Your task to perform on an android device: turn off smart reply in the gmail app Image 0: 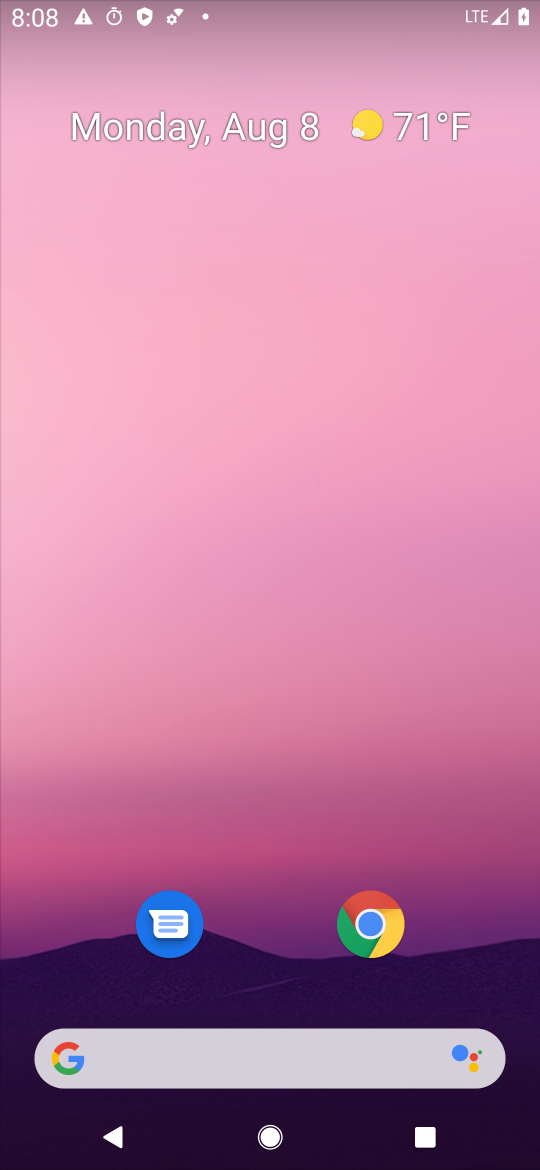
Step 0: click (530, 1153)
Your task to perform on an android device: turn off smart reply in the gmail app Image 1: 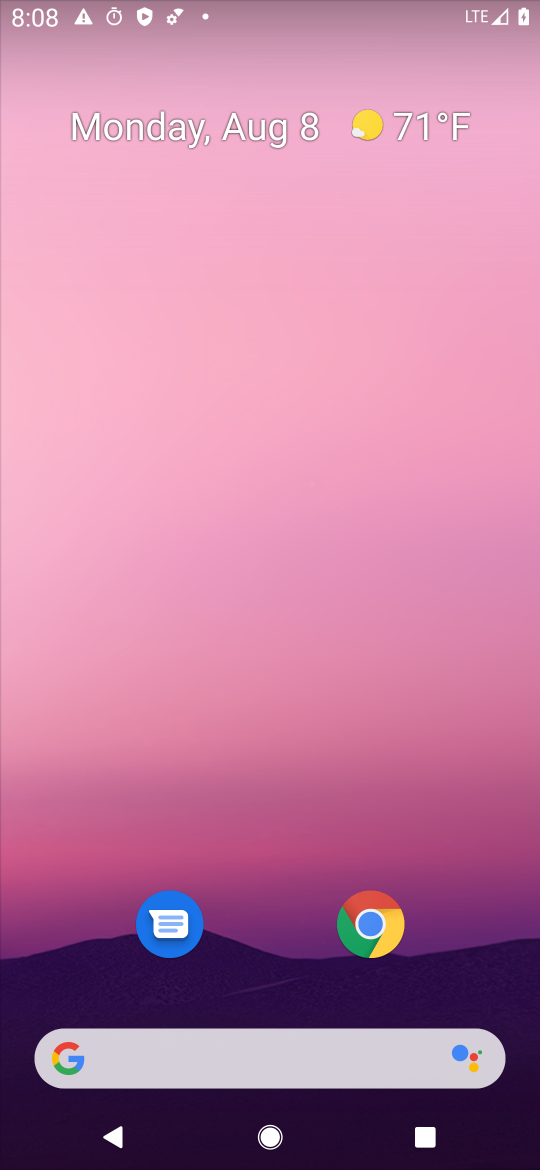
Step 1: drag from (247, 921) to (312, 358)
Your task to perform on an android device: turn off smart reply in the gmail app Image 2: 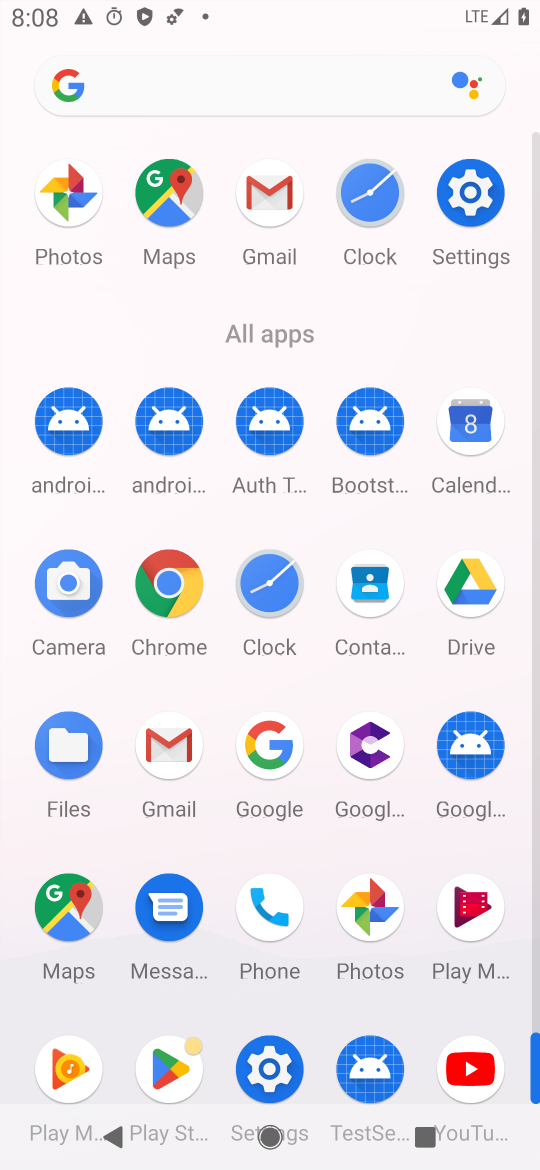
Step 2: click (180, 735)
Your task to perform on an android device: turn off smart reply in the gmail app Image 3: 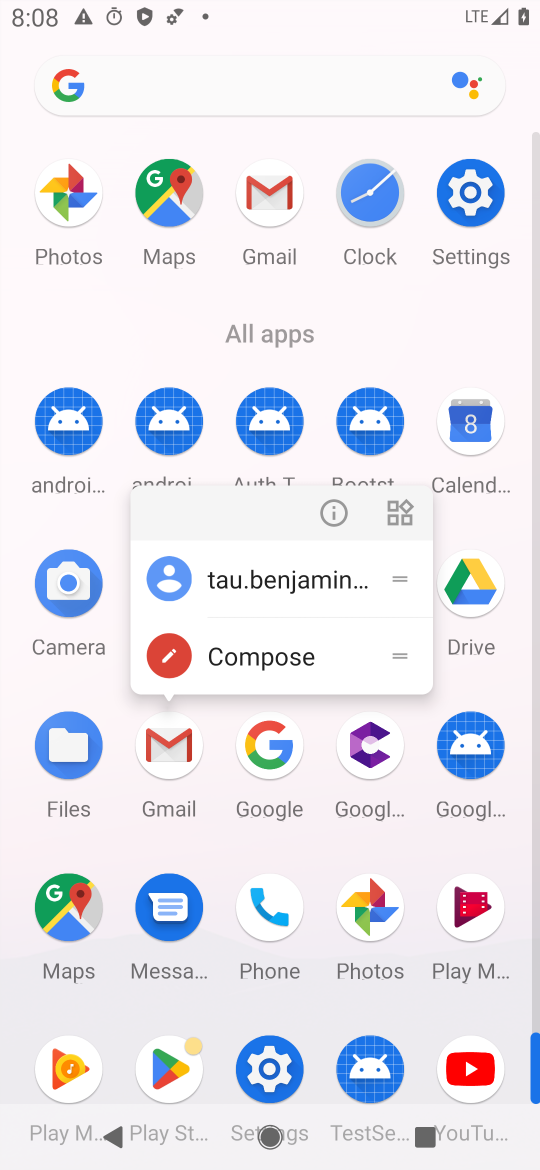
Step 3: click (322, 516)
Your task to perform on an android device: turn off smart reply in the gmail app Image 4: 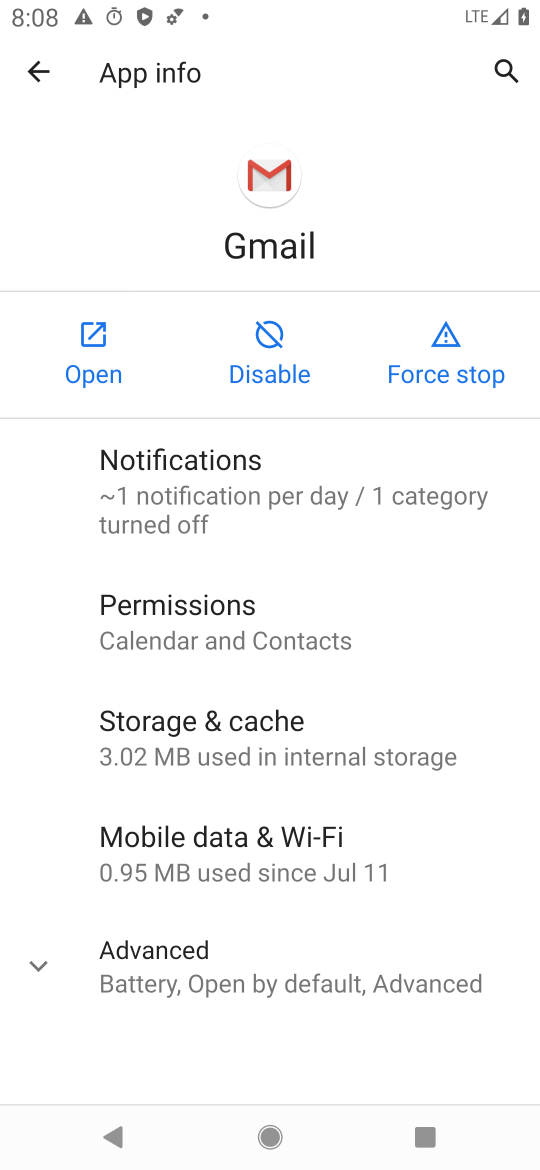
Step 4: click (63, 362)
Your task to perform on an android device: turn off smart reply in the gmail app Image 5: 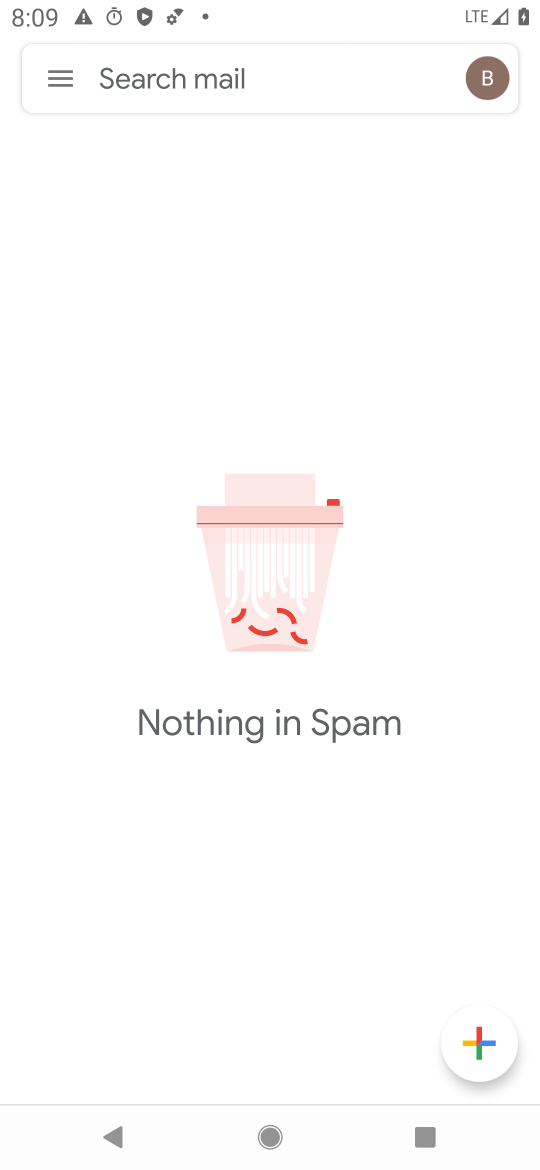
Step 5: click (38, 113)
Your task to perform on an android device: turn off smart reply in the gmail app Image 6: 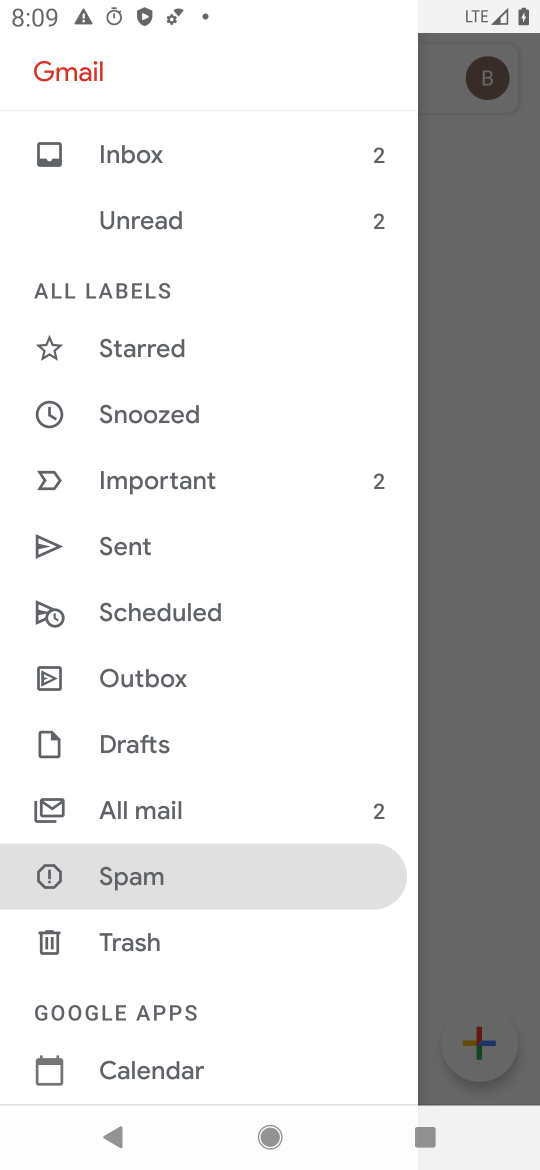
Step 6: drag from (268, 664) to (347, 289)
Your task to perform on an android device: turn off smart reply in the gmail app Image 7: 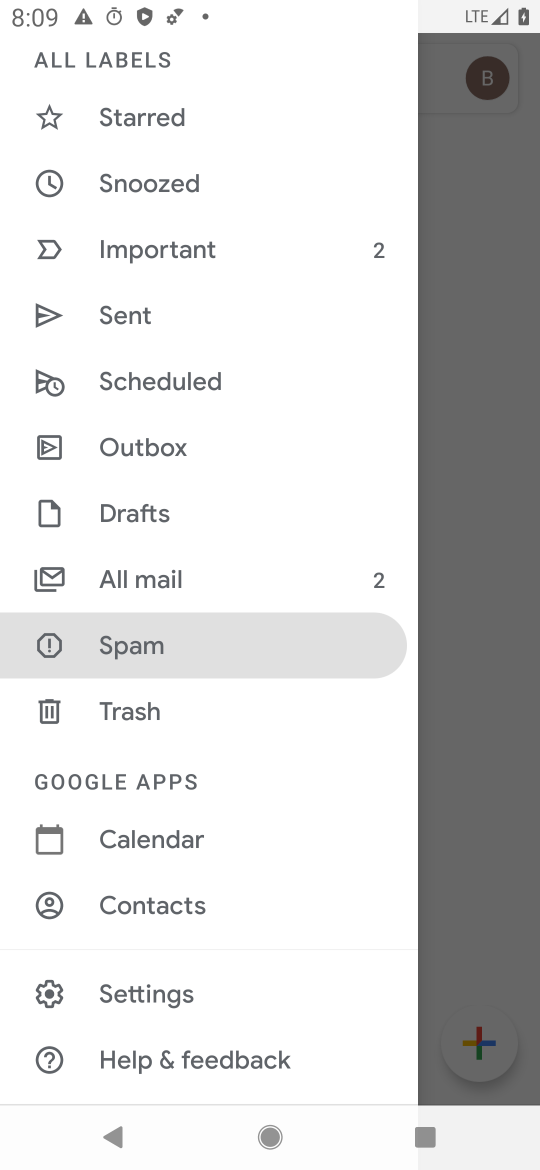
Step 7: click (162, 1004)
Your task to perform on an android device: turn off smart reply in the gmail app Image 8: 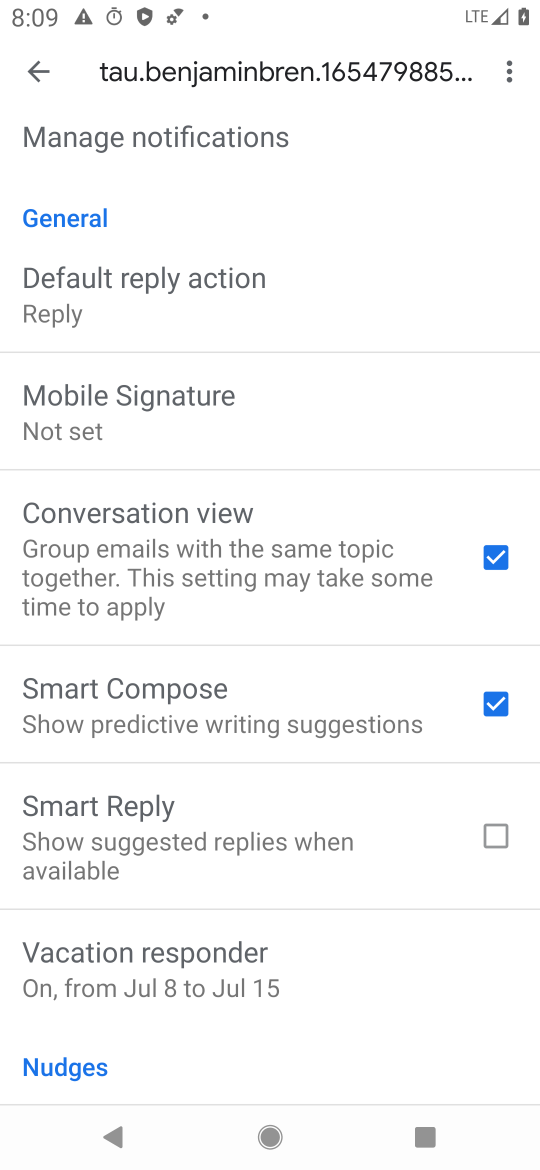
Step 8: task complete